Your task to perform on an android device: toggle sleep mode Image 0: 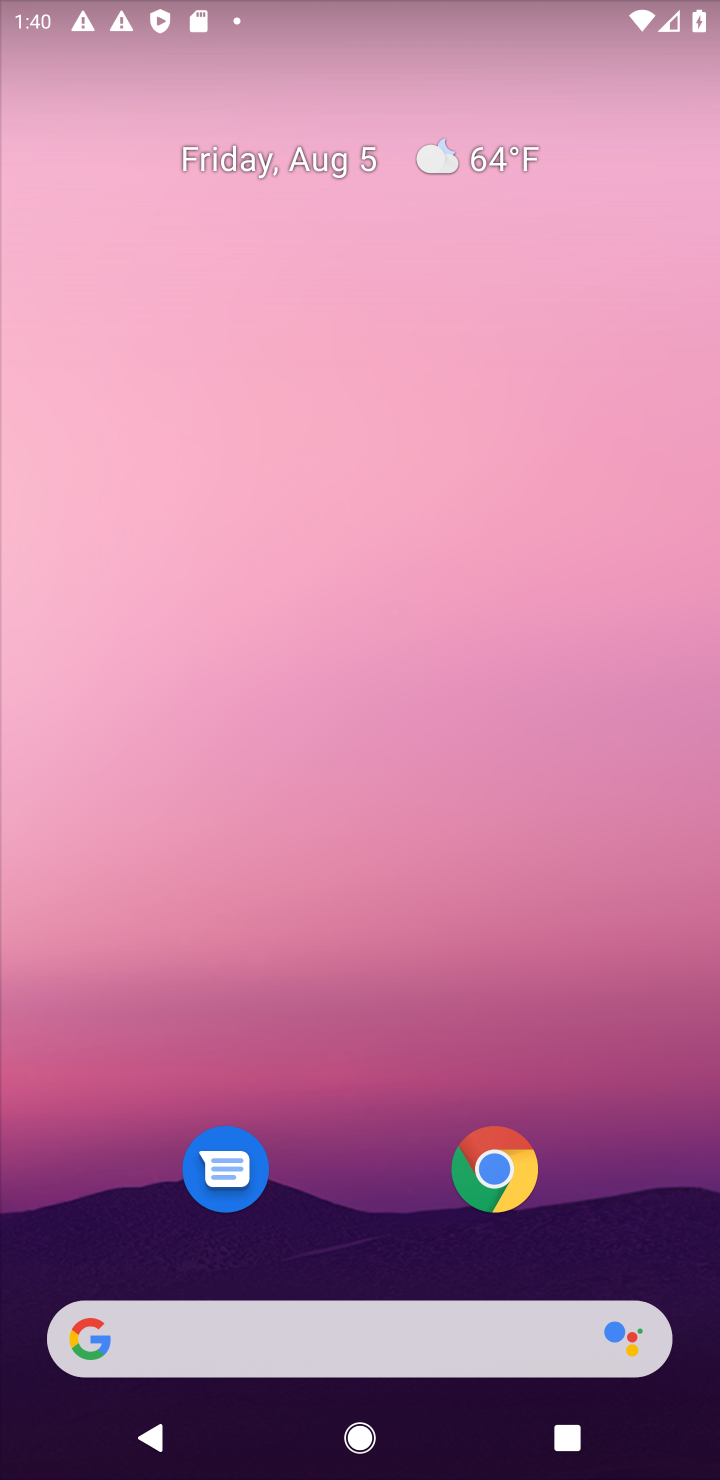
Step 0: drag from (359, 1184) to (379, 337)
Your task to perform on an android device: toggle sleep mode Image 1: 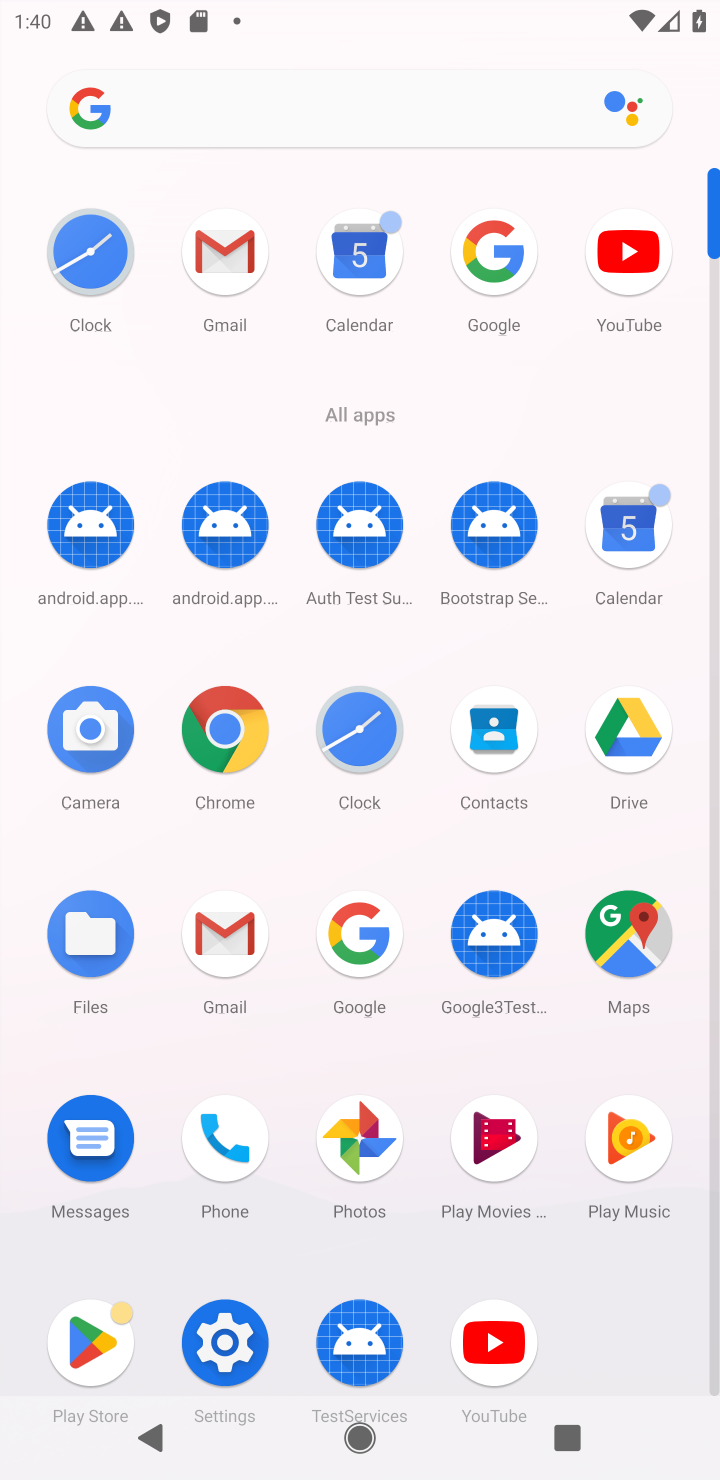
Step 1: click (221, 1325)
Your task to perform on an android device: toggle sleep mode Image 2: 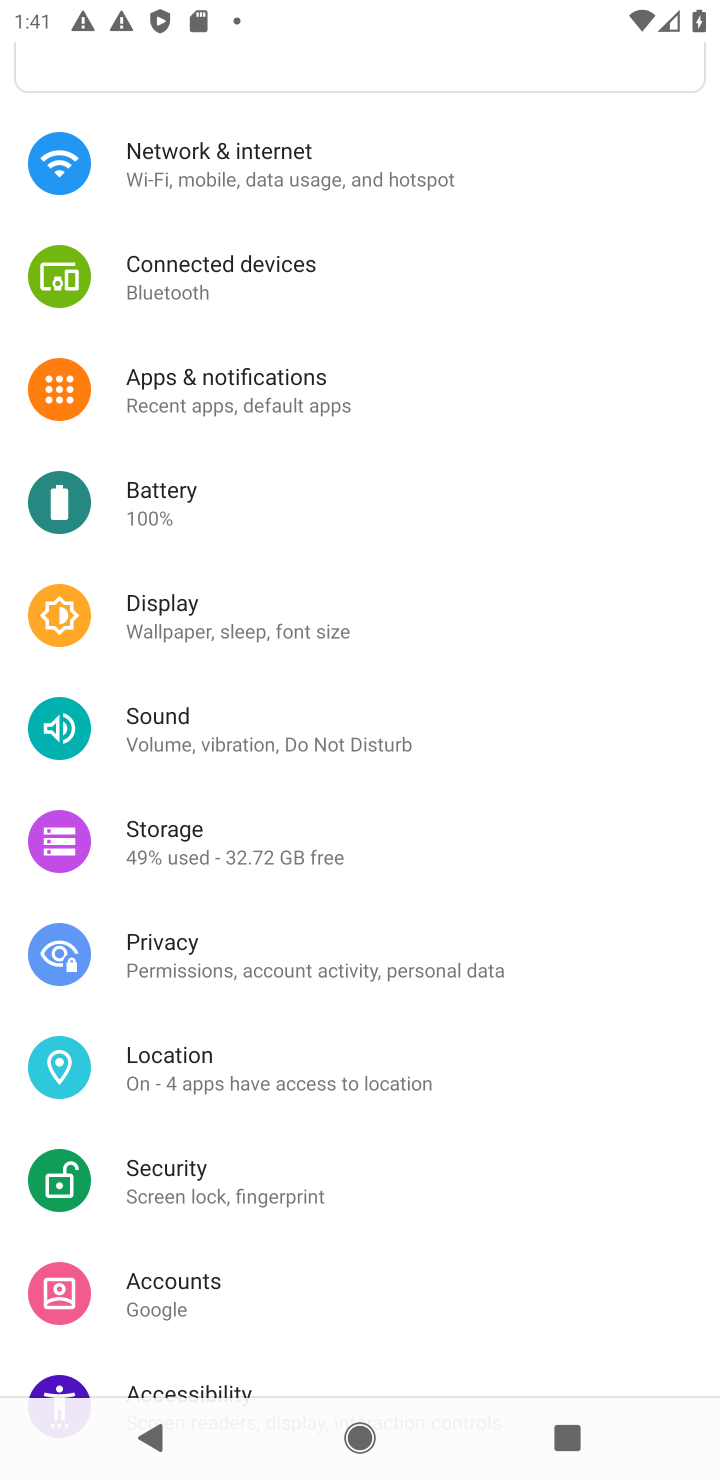
Step 2: click (277, 618)
Your task to perform on an android device: toggle sleep mode Image 3: 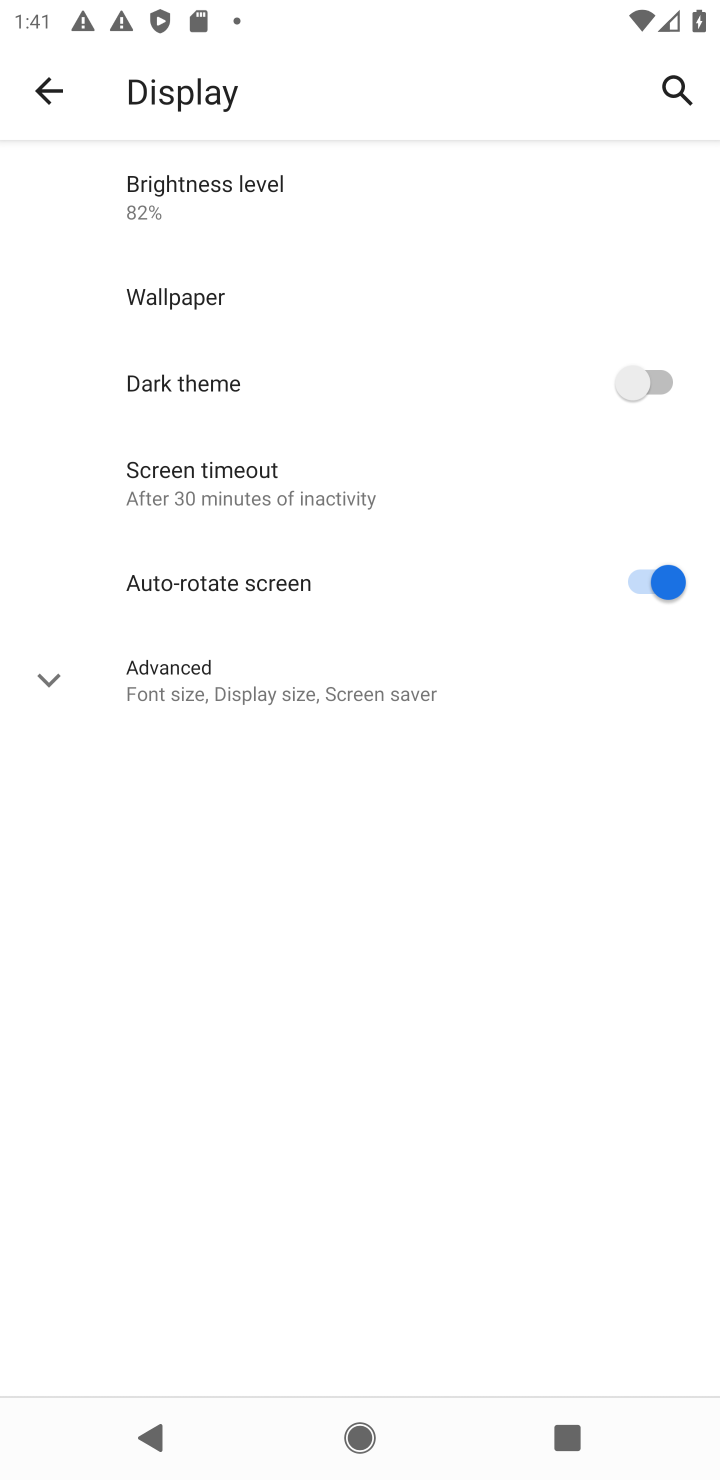
Step 3: click (265, 512)
Your task to perform on an android device: toggle sleep mode Image 4: 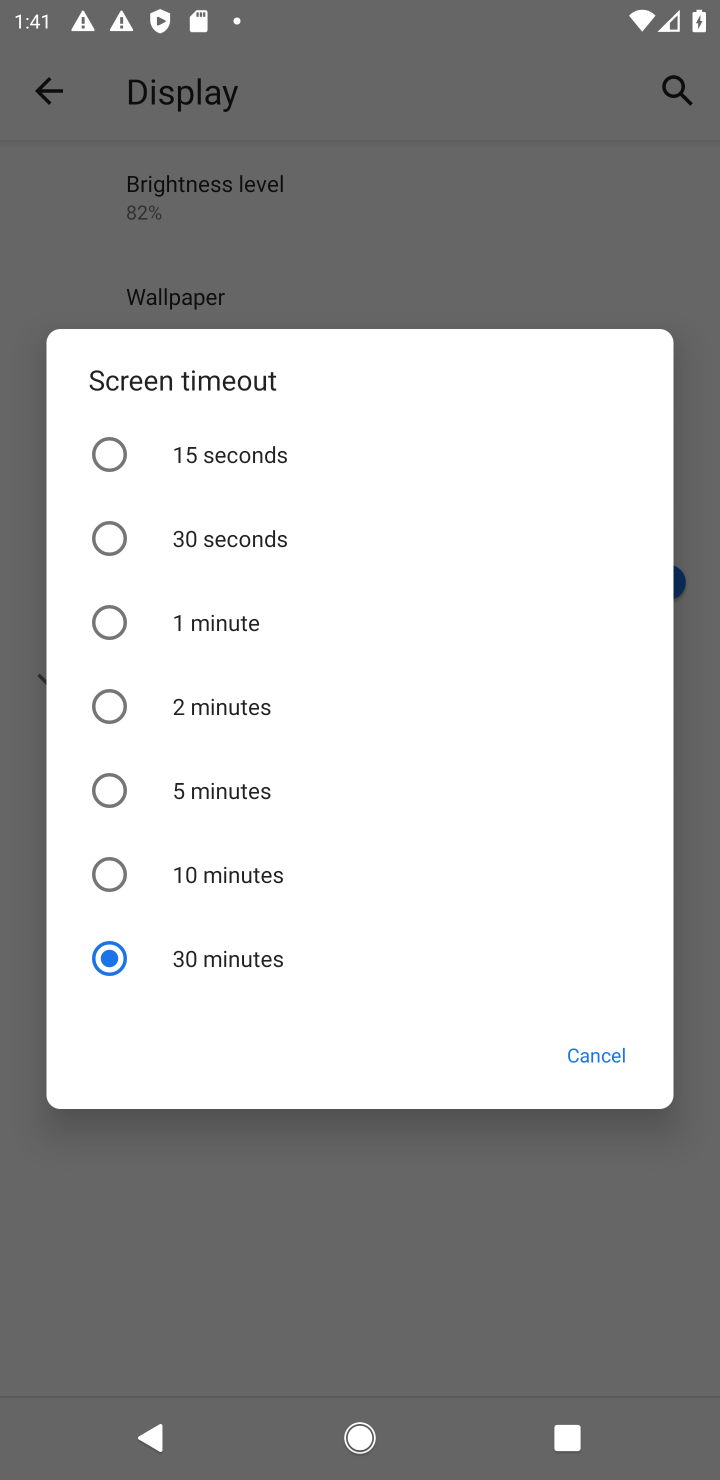
Step 4: click (263, 510)
Your task to perform on an android device: toggle sleep mode Image 5: 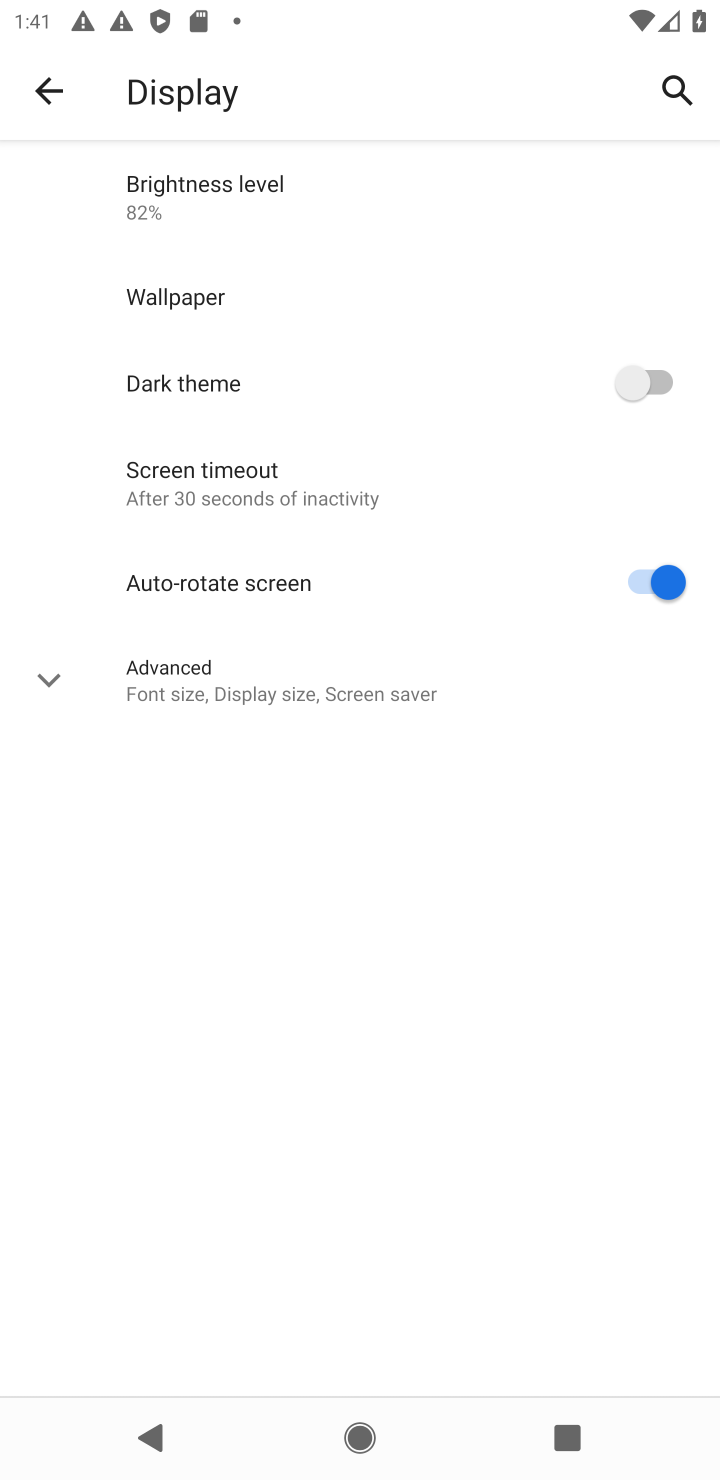
Step 5: task complete